Your task to perform on an android device: open app "Duolingo: language lessons" (install if not already installed) and go to login screen Image 0: 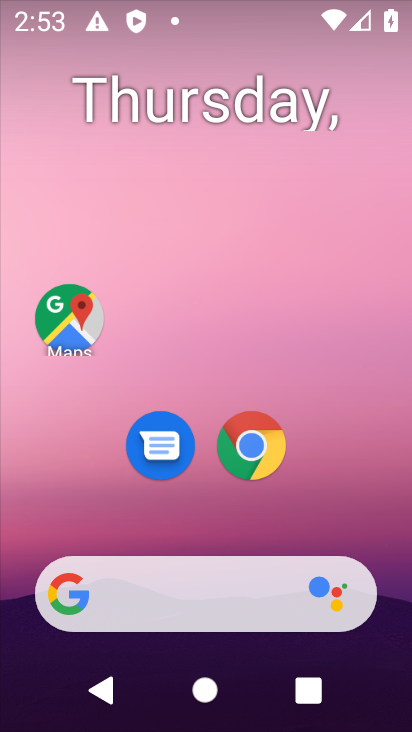
Step 0: drag from (196, 615) to (336, 50)
Your task to perform on an android device: open app "Duolingo: language lessons" (install if not already installed) and go to login screen Image 1: 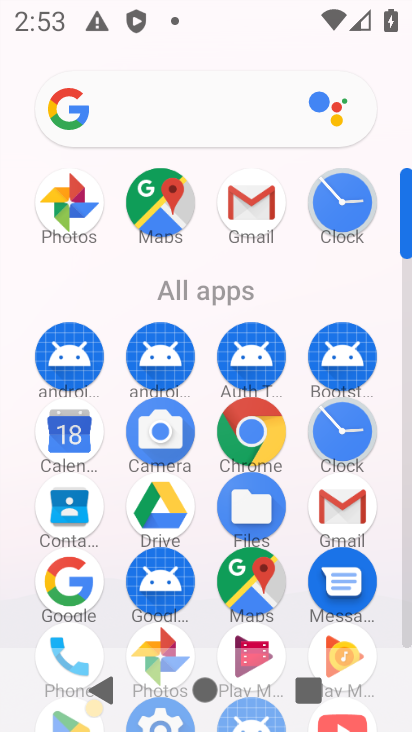
Step 1: drag from (294, 626) to (275, 209)
Your task to perform on an android device: open app "Duolingo: language lessons" (install if not already installed) and go to login screen Image 2: 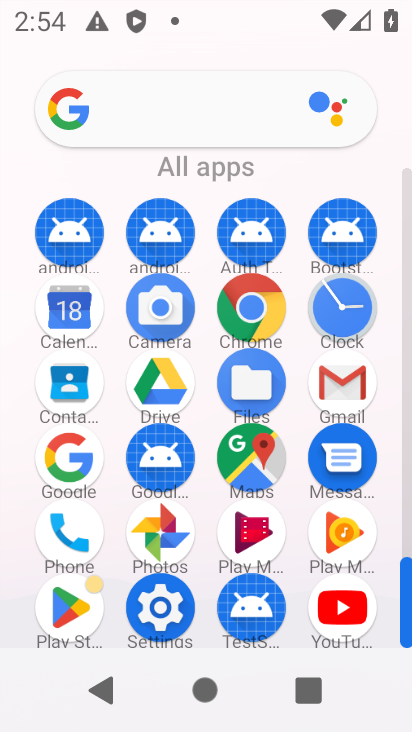
Step 2: click (73, 613)
Your task to perform on an android device: open app "Duolingo: language lessons" (install if not already installed) and go to login screen Image 3: 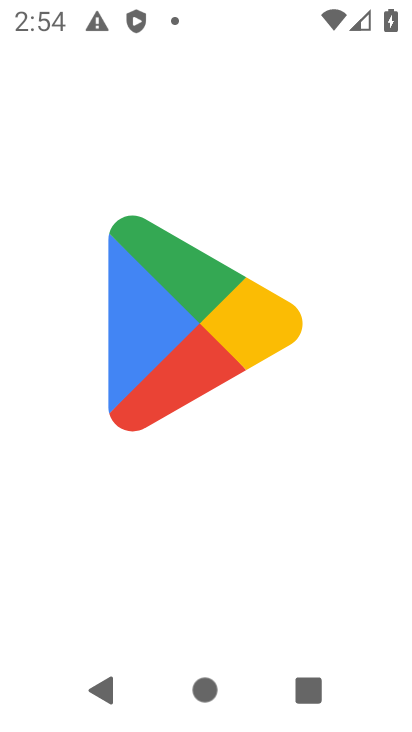
Step 3: task complete